Your task to perform on an android device: Open Youtube and go to the subscriptions tab Image 0: 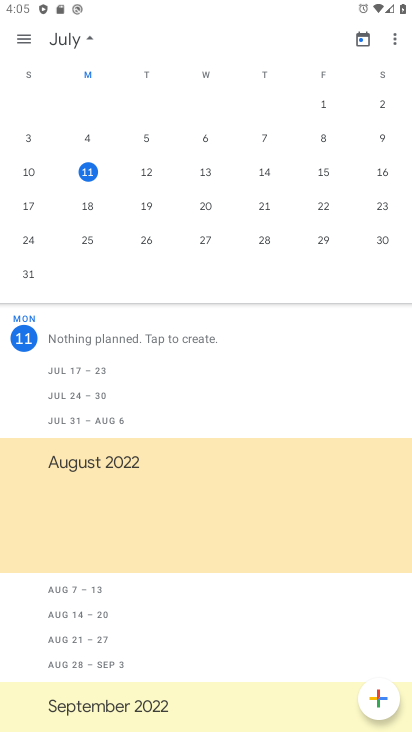
Step 0: press home button
Your task to perform on an android device: Open Youtube and go to the subscriptions tab Image 1: 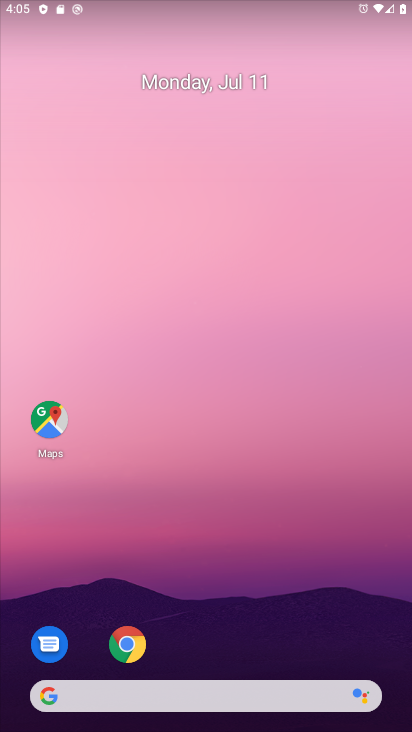
Step 1: drag from (333, 569) to (316, 91)
Your task to perform on an android device: Open Youtube and go to the subscriptions tab Image 2: 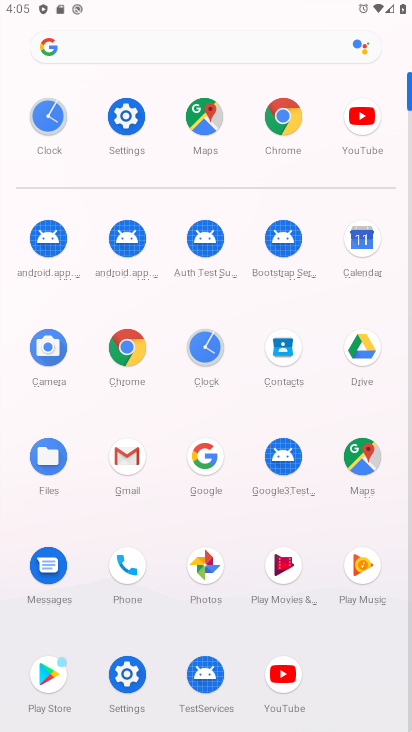
Step 2: click (352, 127)
Your task to perform on an android device: Open Youtube and go to the subscriptions tab Image 3: 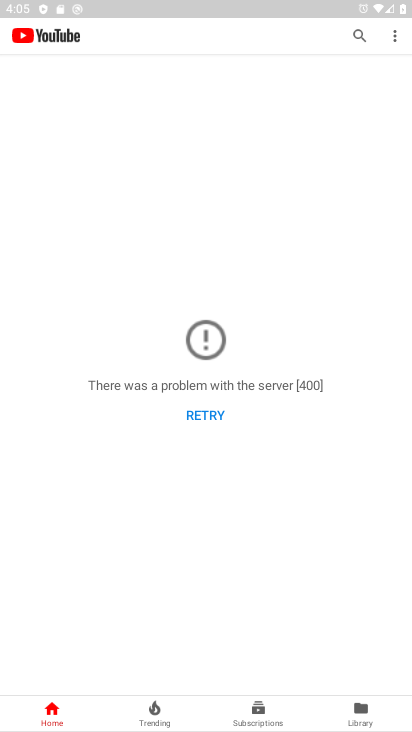
Step 3: click (253, 704)
Your task to perform on an android device: Open Youtube and go to the subscriptions tab Image 4: 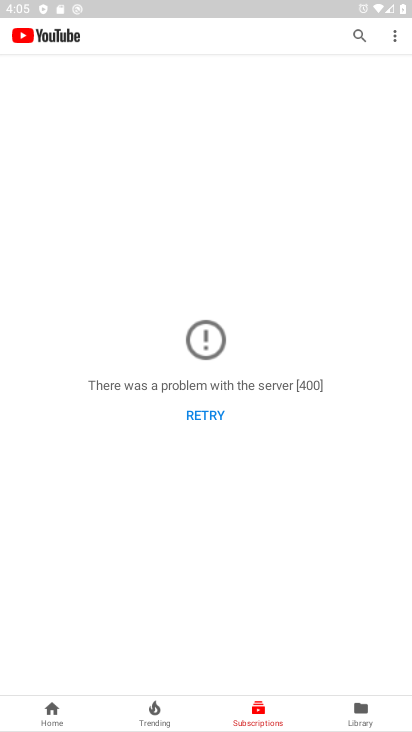
Step 4: click (205, 414)
Your task to perform on an android device: Open Youtube and go to the subscriptions tab Image 5: 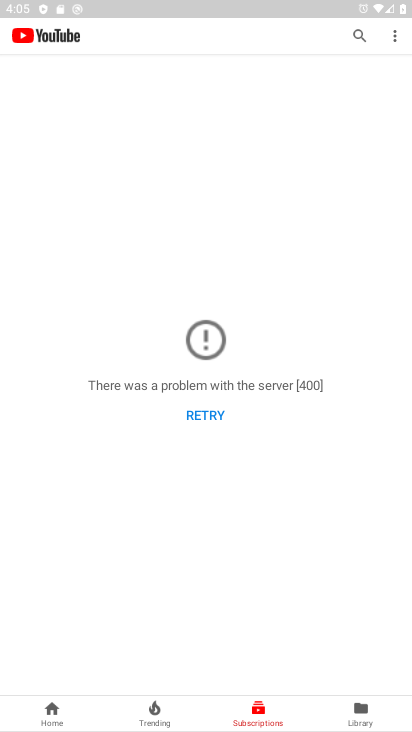
Step 5: click (205, 420)
Your task to perform on an android device: Open Youtube and go to the subscriptions tab Image 6: 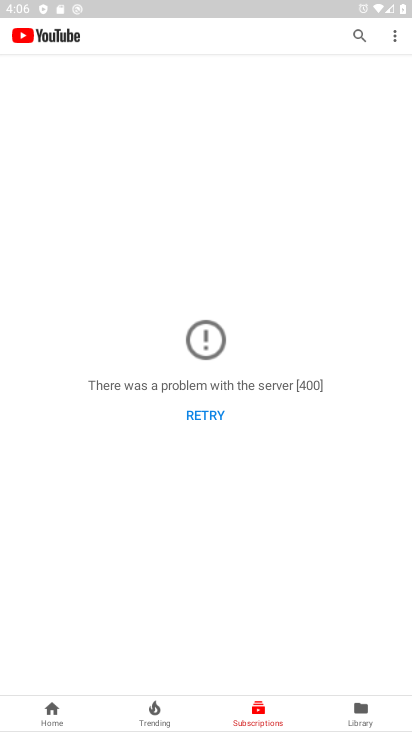
Step 6: task complete